Your task to perform on an android device: install app "Adobe Acrobat Reader" Image 0: 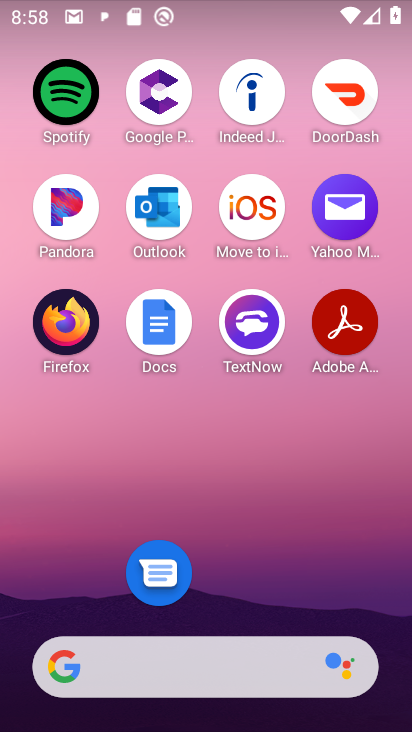
Step 0: drag from (225, 605) to (173, 5)
Your task to perform on an android device: install app "Adobe Acrobat Reader" Image 1: 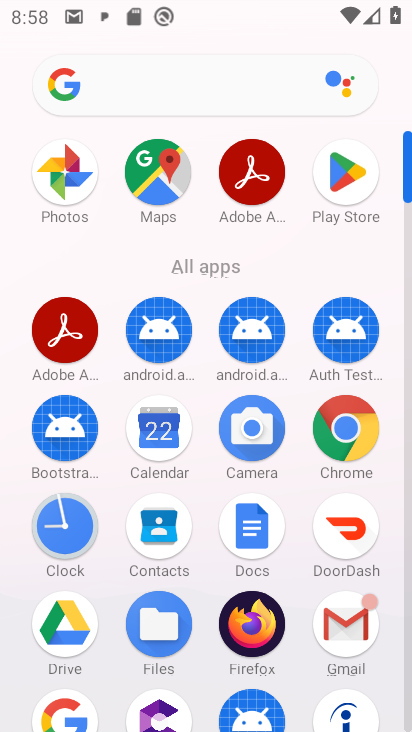
Step 1: click (339, 216)
Your task to perform on an android device: install app "Adobe Acrobat Reader" Image 2: 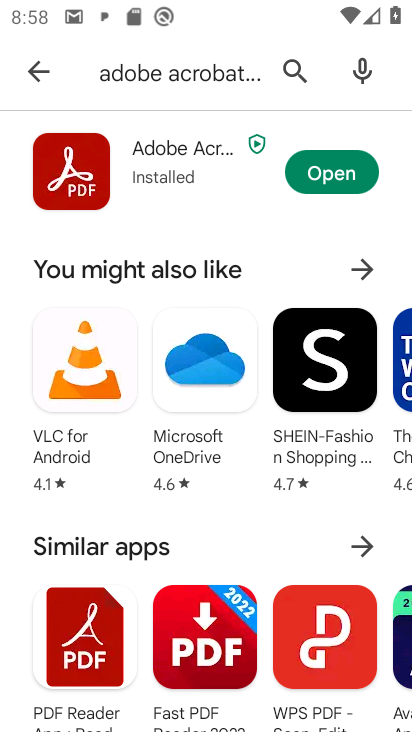
Step 2: click (228, 75)
Your task to perform on an android device: install app "Adobe Acrobat Reader" Image 3: 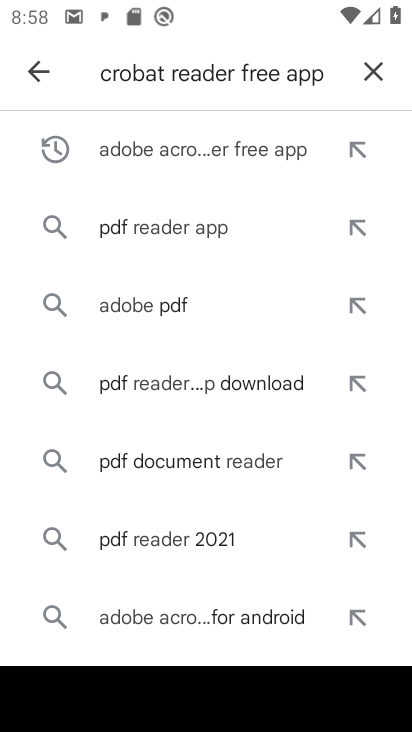
Step 3: task complete